Your task to perform on an android device: Clear all items from cart on target. Add "acer predator" to the cart on target Image 0: 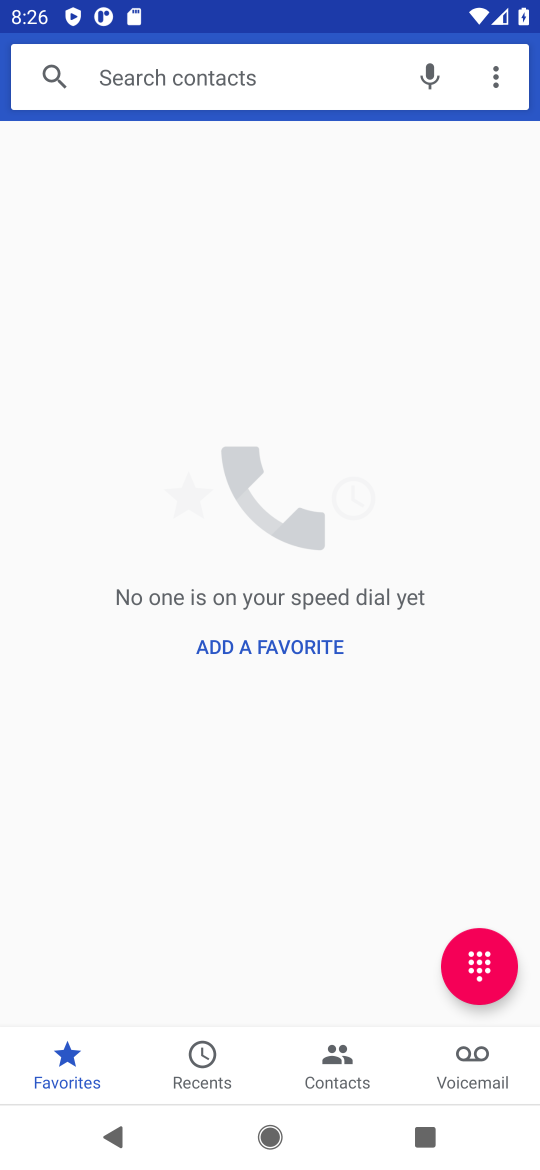
Step 0: press home button
Your task to perform on an android device: Clear all items from cart on target. Add "acer predator" to the cart on target Image 1: 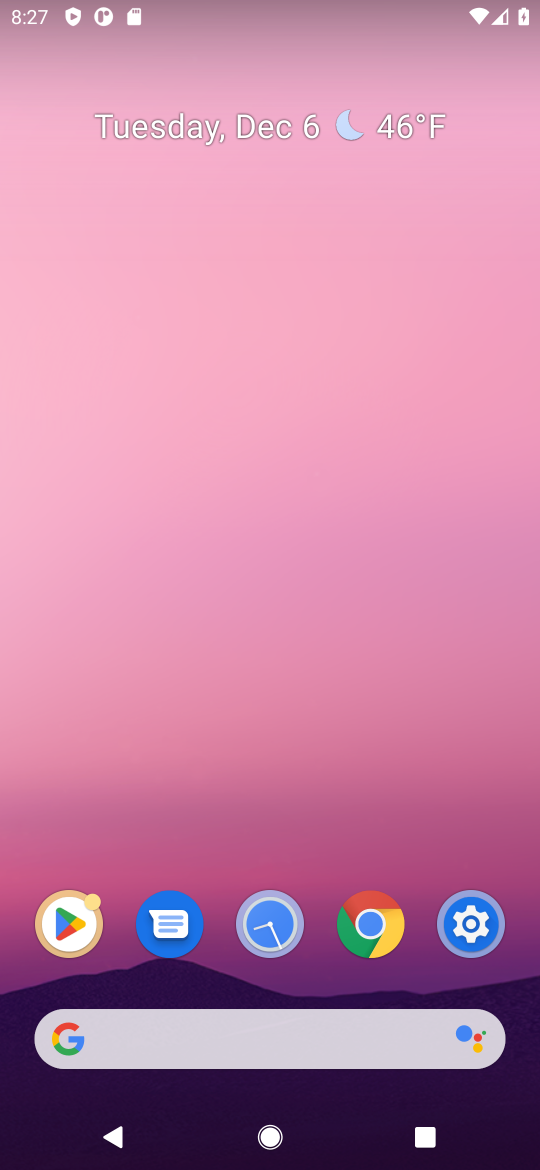
Step 1: click (319, 1025)
Your task to perform on an android device: Clear all items from cart on target. Add "acer predator" to the cart on target Image 2: 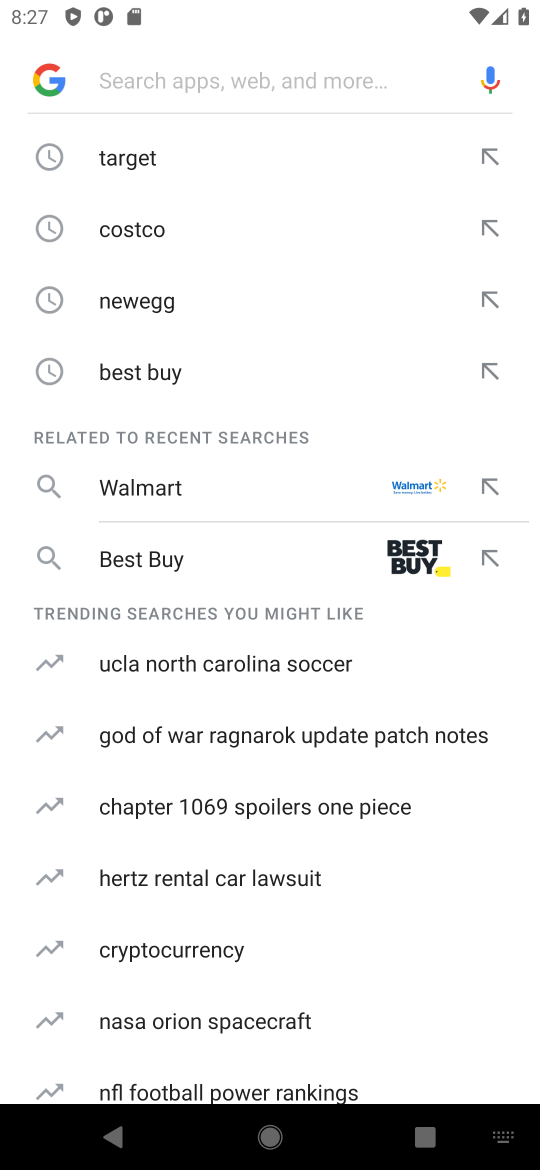
Step 2: click (91, 167)
Your task to perform on an android device: Clear all items from cart on target. Add "acer predator" to the cart on target Image 3: 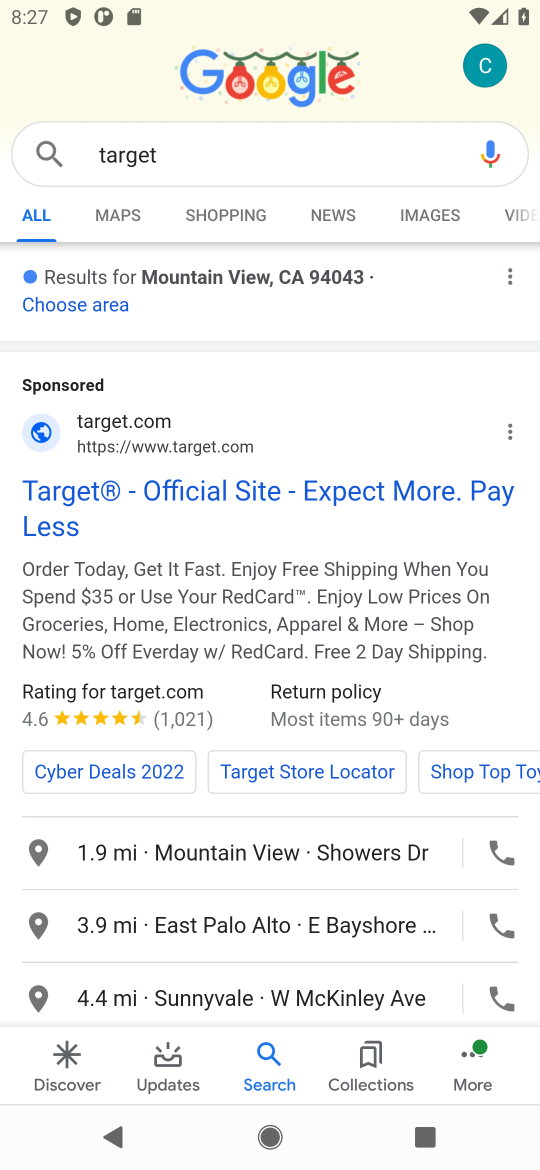
Step 3: click (125, 494)
Your task to perform on an android device: Clear all items from cart on target. Add "acer predator" to the cart on target Image 4: 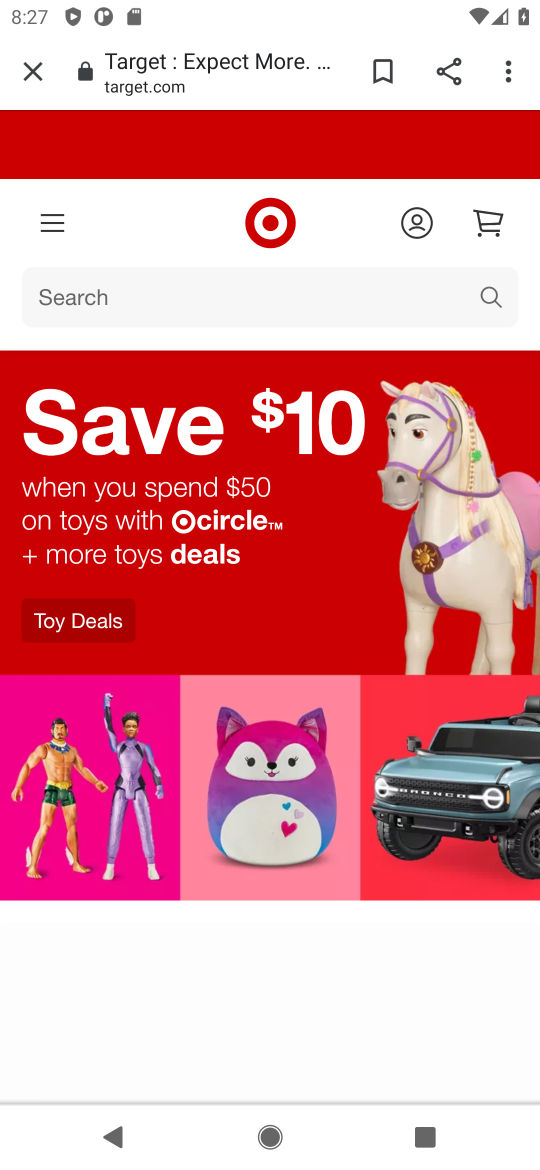
Step 4: click (150, 285)
Your task to perform on an android device: Clear all items from cart on target. Add "acer predator" to the cart on target Image 5: 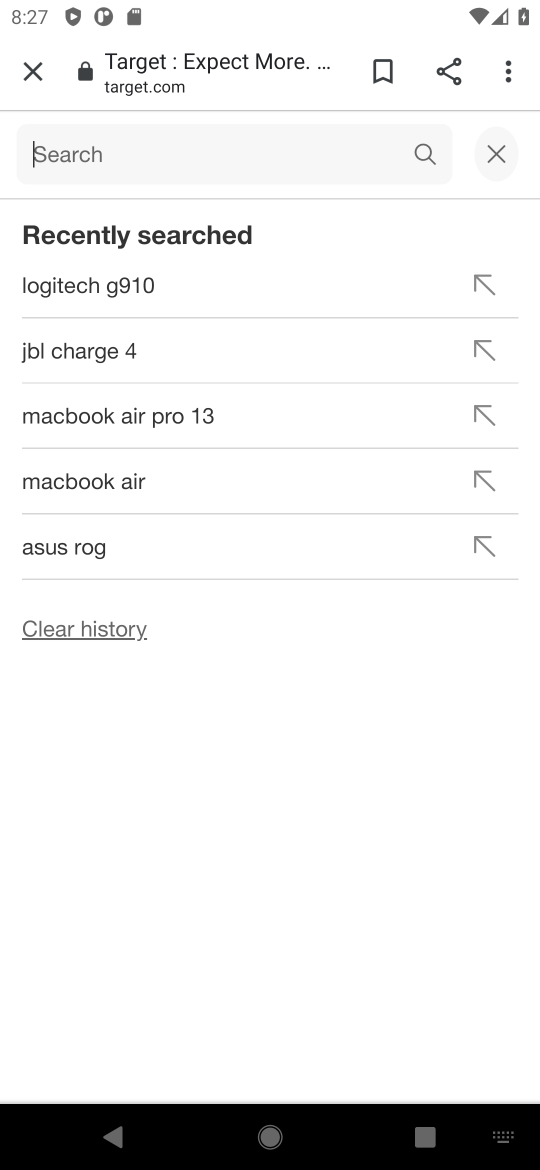
Step 5: type "acer predator"
Your task to perform on an android device: Clear all items from cart on target. Add "acer predator" to the cart on target Image 6: 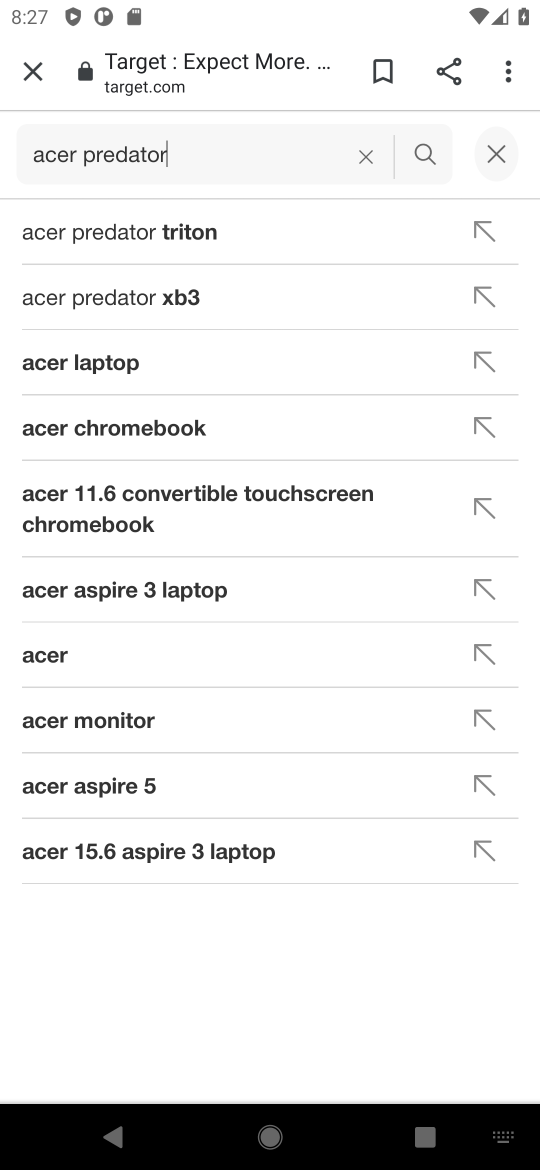
Step 6: click (132, 252)
Your task to perform on an android device: Clear all items from cart on target. Add "acer predator" to the cart on target Image 7: 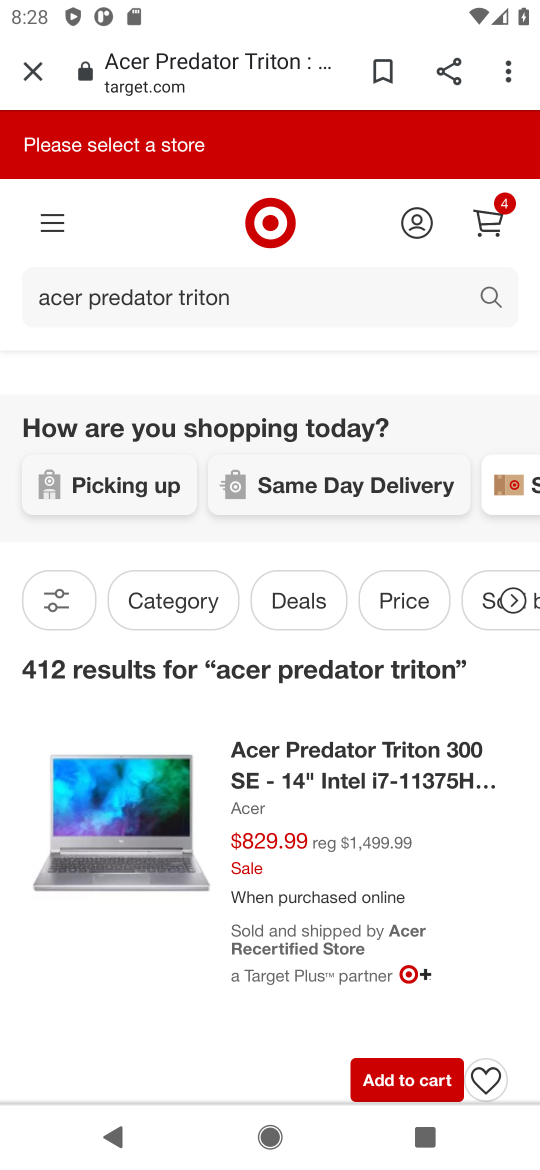
Step 7: click (419, 1076)
Your task to perform on an android device: Clear all items from cart on target. Add "acer predator" to the cart on target Image 8: 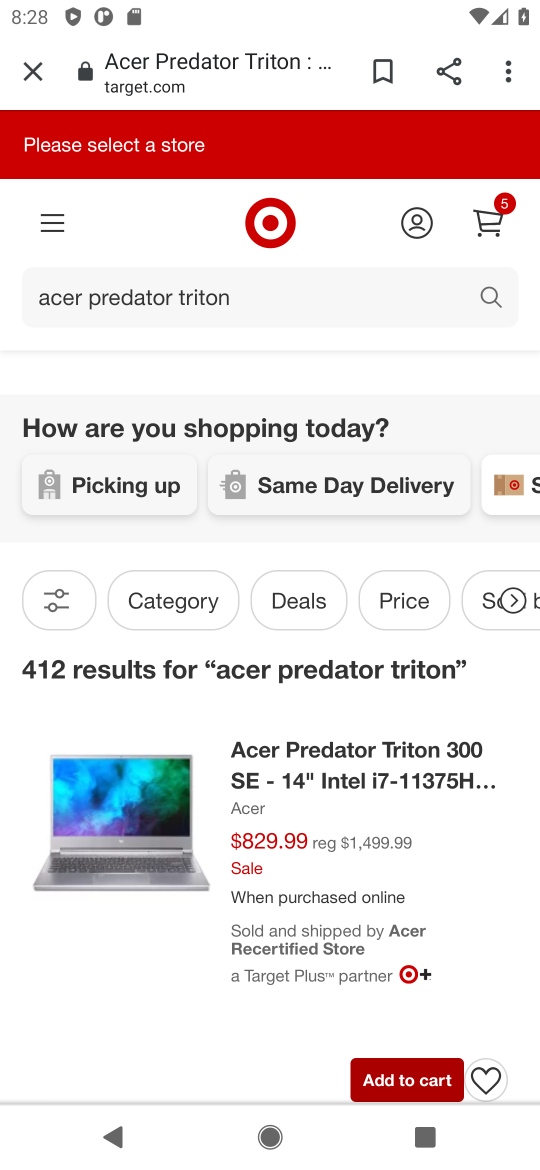
Step 8: task complete